Your task to perform on an android device: Open Yahoo.com Image 0: 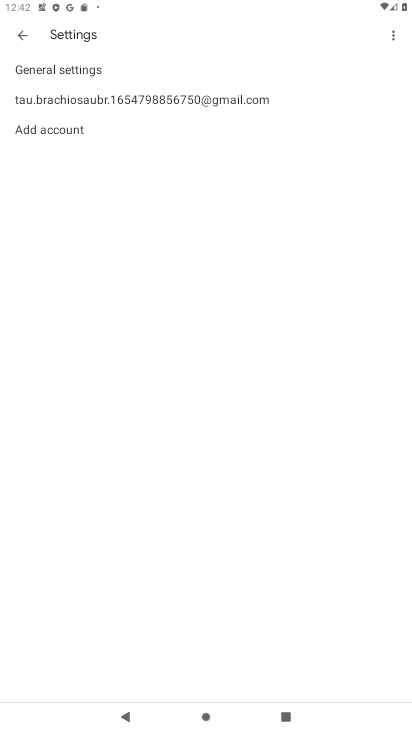
Step 0: press home button
Your task to perform on an android device: Open Yahoo.com Image 1: 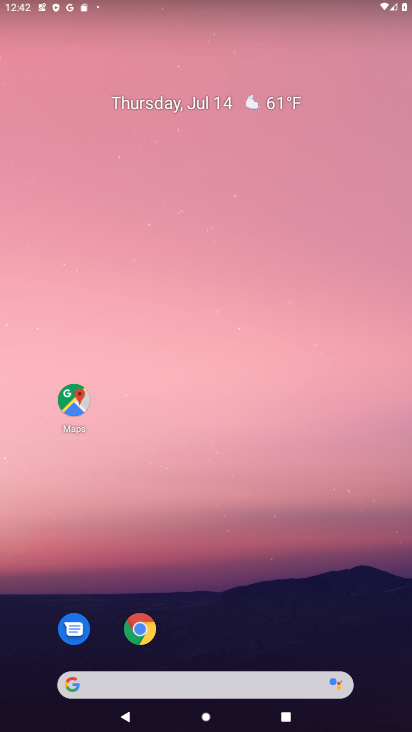
Step 1: click (140, 628)
Your task to perform on an android device: Open Yahoo.com Image 2: 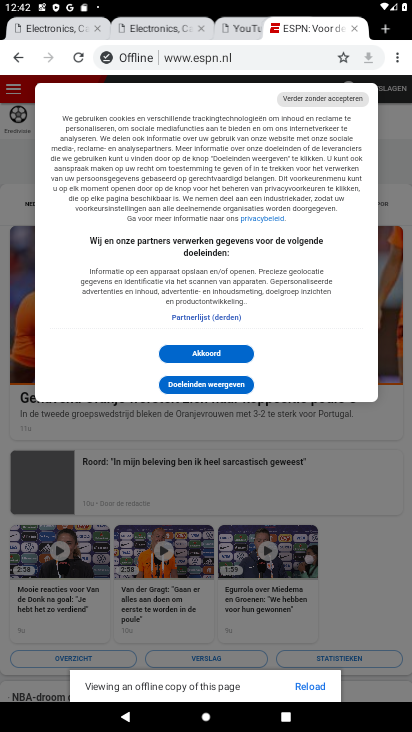
Step 2: click (384, 31)
Your task to perform on an android device: Open Yahoo.com Image 3: 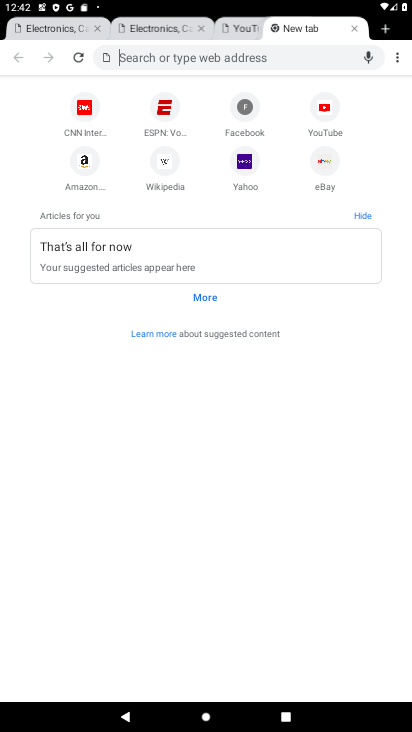
Step 3: click (241, 167)
Your task to perform on an android device: Open Yahoo.com Image 4: 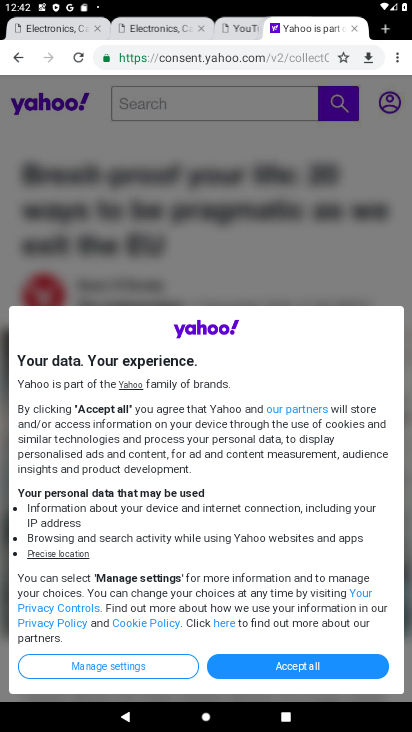
Step 4: task complete